Your task to perform on an android device: open sync settings in chrome Image 0: 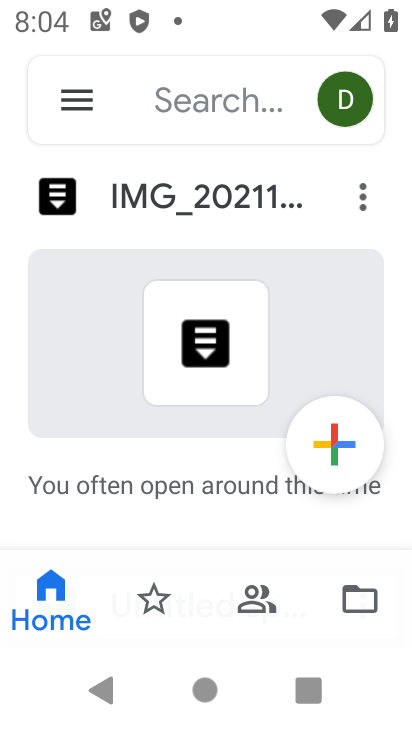
Step 0: press home button
Your task to perform on an android device: open sync settings in chrome Image 1: 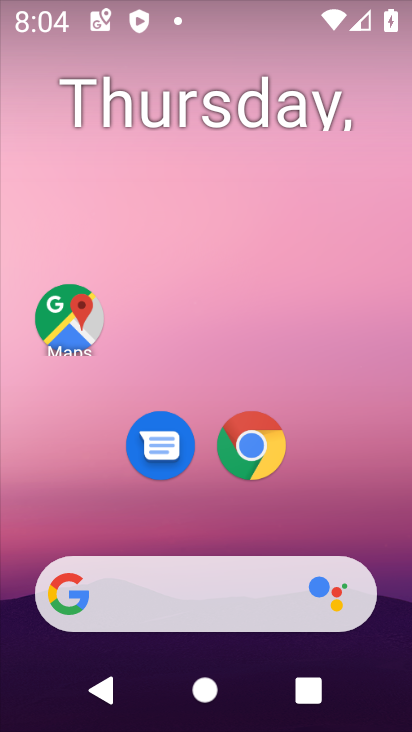
Step 1: drag from (384, 622) to (288, 34)
Your task to perform on an android device: open sync settings in chrome Image 2: 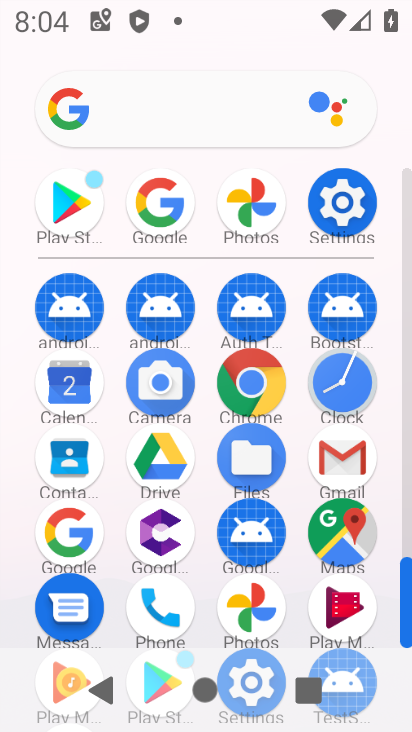
Step 2: click (246, 383)
Your task to perform on an android device: open sync settings in chrome Image 3: 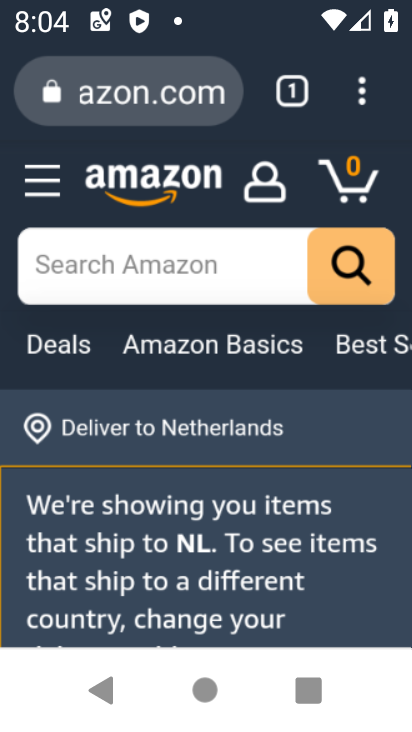
Step 3: press back button
Your task to perform on an android device: open sync settings in chrome Image 4: 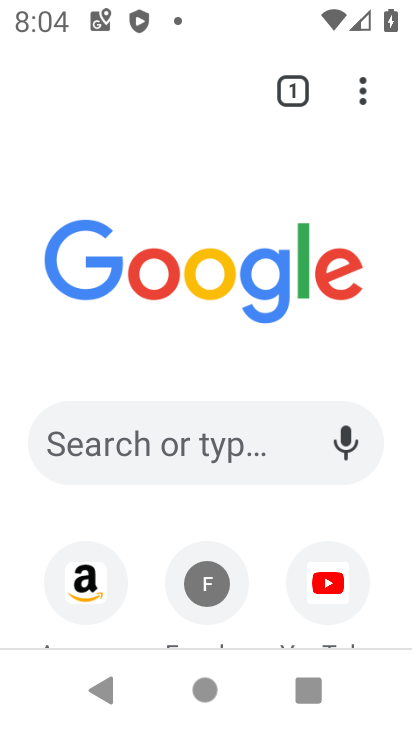
Step 4: click (371, 88)
Your task to perform on an android device: open sync settings in chrome Image 5: 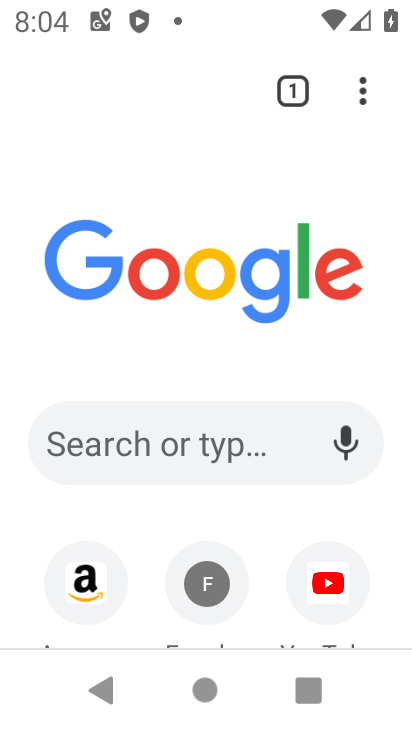
Step 5: click (355, 96)
Your task to perform on an android device: open sync settings in chrome Image 6: 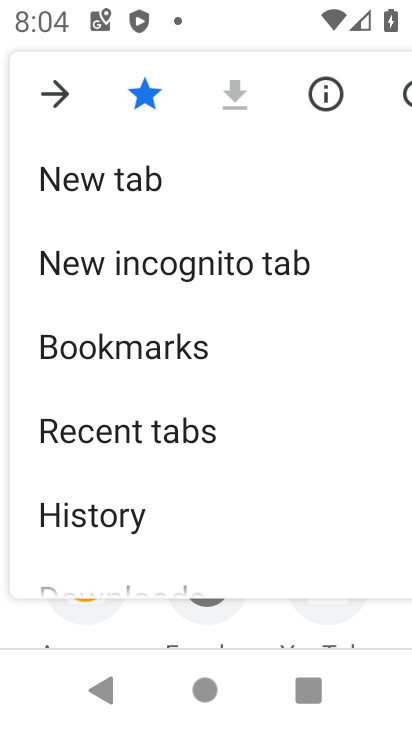
Step 6: drag from (246, 573) to (307, 95)
Your task to perform on an android device: open sync settings in chrome Image 7: 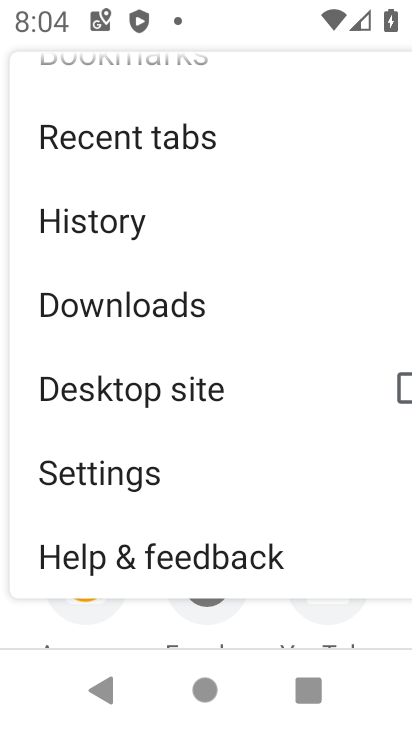
Step 7: click (164, 472)
Your task to perform on an android device: open sync settings in chrome Image 8: 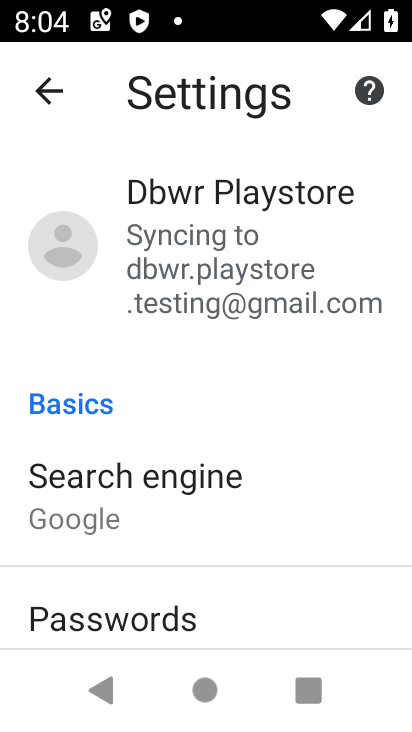
Step 8: drag from (179, 601) to (203, 169)
Your task to perform on an android device: open sync settings in chrome Image 9: 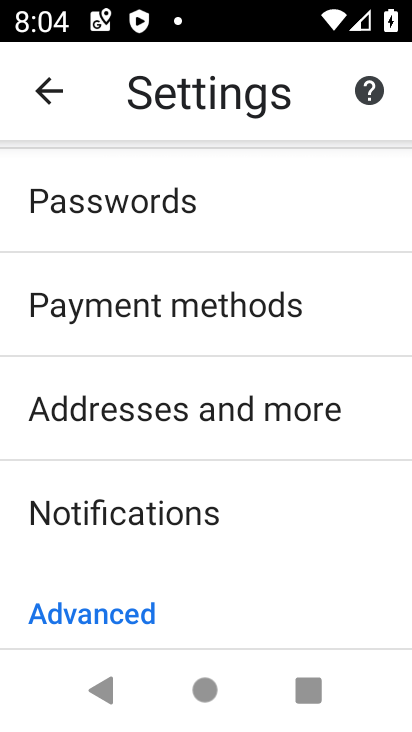
Step 9: drag from (185, 597) to (244, 167)
Your task to perform on an android device: open sync settings in chrome Image 10: 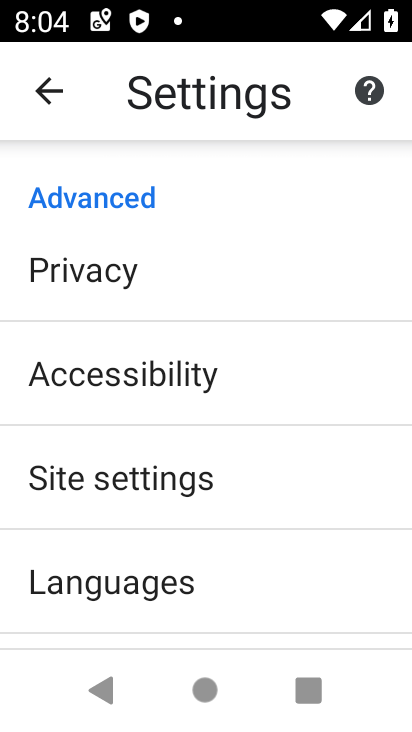
Step 10: click (209, 502)
Your task to perform on an android device: open sync settings in chrome Image 11: 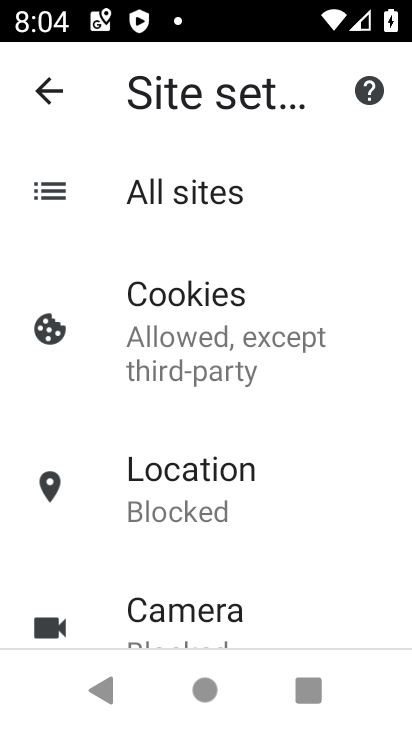
Step 11: drag from (233, 583) to (238, 93)
Your task to perform on an android device: open sync settings in chrome Image 12: 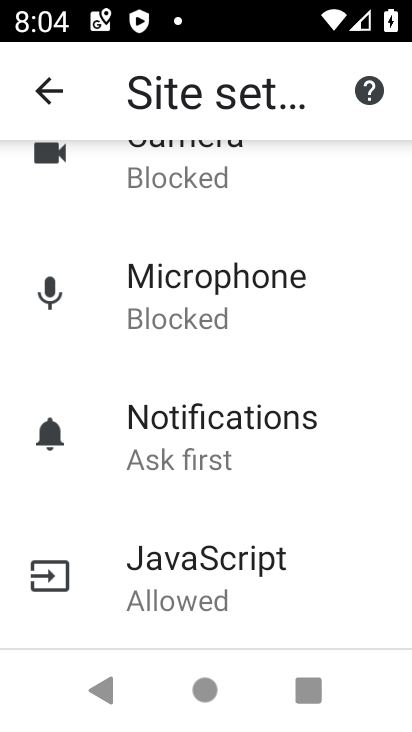
Step 12: drag from (209, 563) to (204, 150)
Your task to perform on an android device: open sync settings in chrome Image 13: 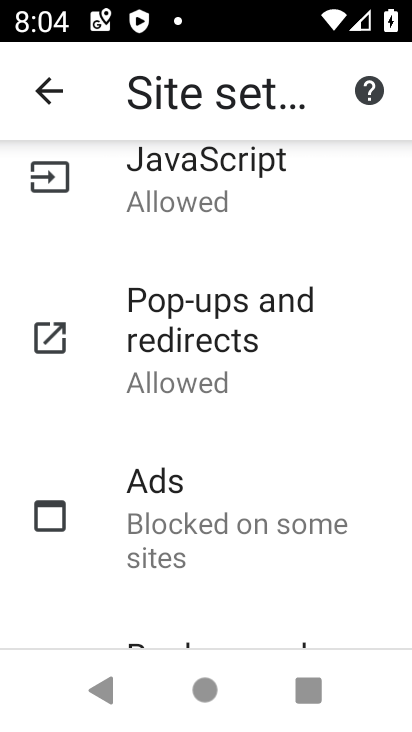
Step 13: drag from (238, 571) to (256, 167)
Your task to perform on an android device: open sync settings in chrome Image 14: 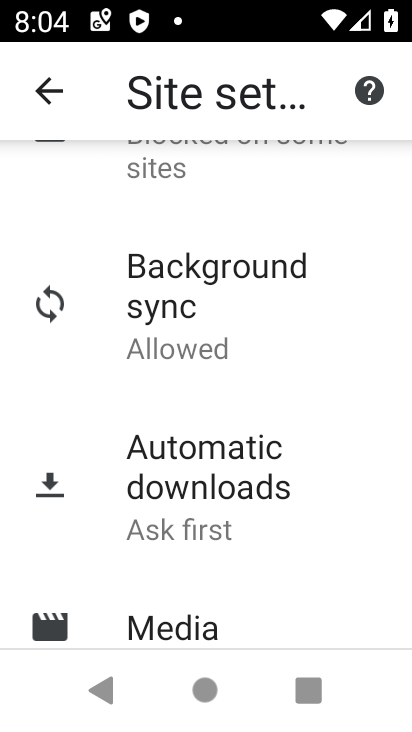
Step 14: click (200, 302)
Your task to perform on an android device: open sync settings in chrome Image 15: 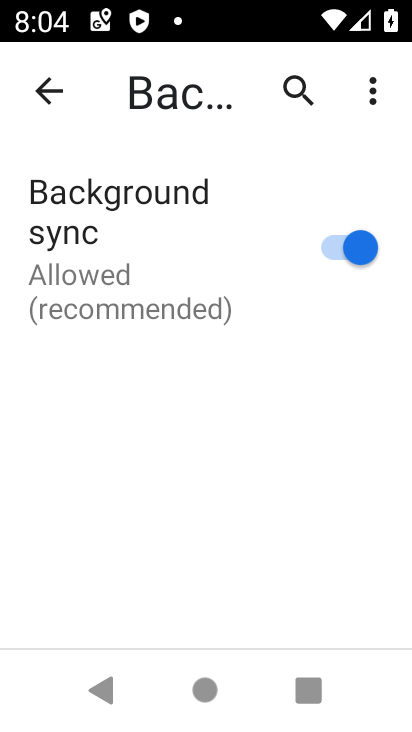
Step 15: task complete